Your task to perform on an android device: Open settings Image 0: 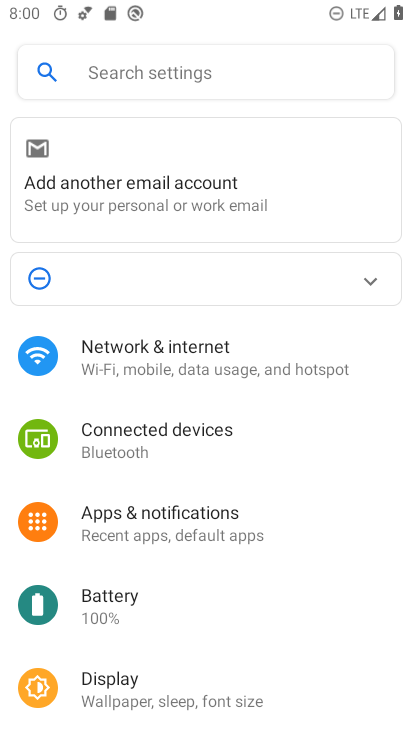
Step 0: task complete